Your task to perform on an android device: open sync settings in chrome Image 0: 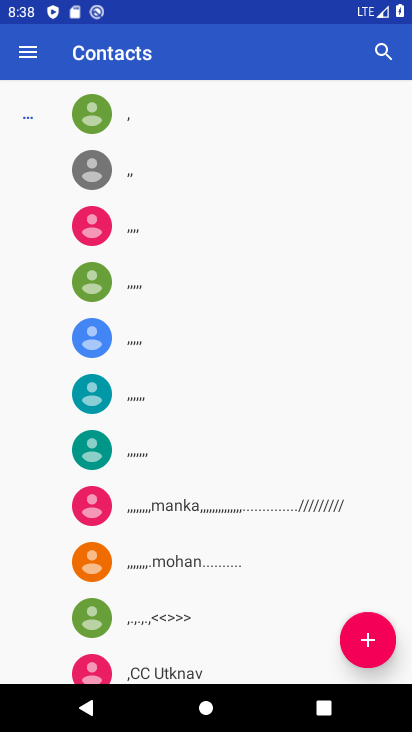
Step 0: press home button
Your task to perform on an android device: open sync settings in chrome Image 1: 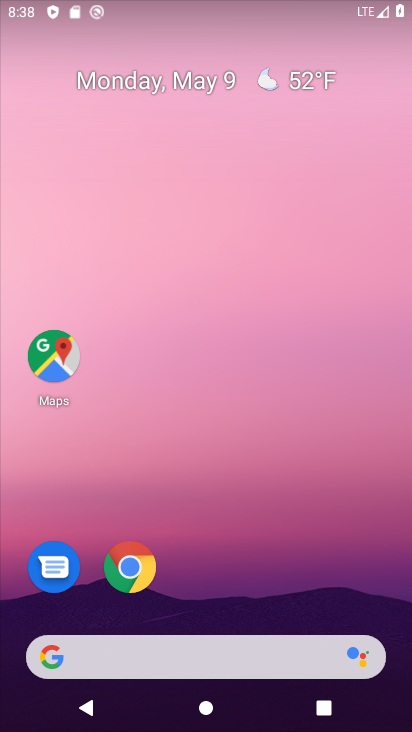
Step 1: click (268, 597)
Your task to perform on an android device: open sync settings in chrome Image 2: 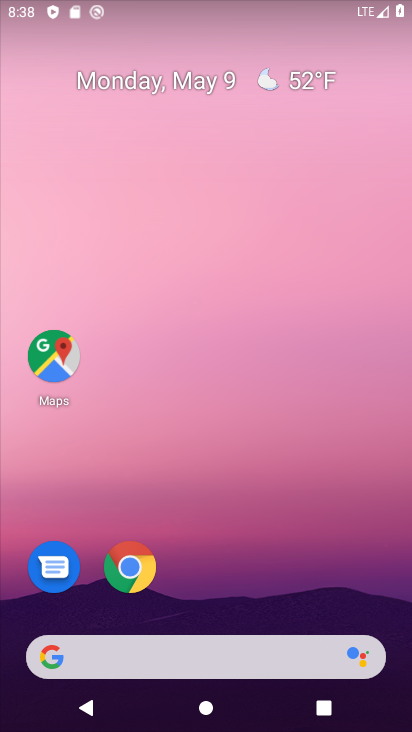
Step 2: click (141, 573)
Your task to perform on an android device: open sync settings in chrome Image 3: 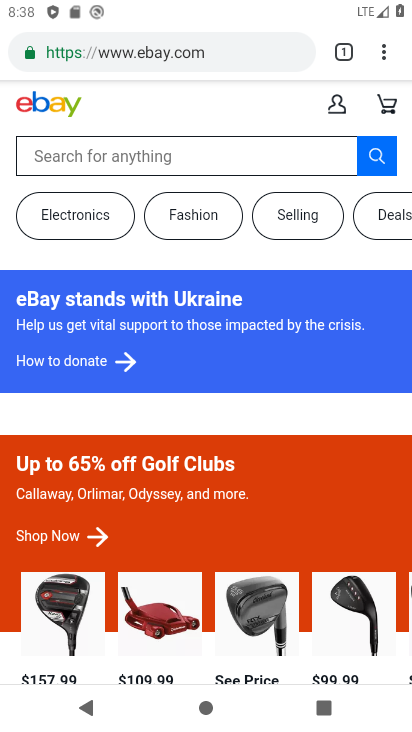
Step 3: click (393, 62)
Your task to perform on an android device: open sync settings in chrome Image 4: 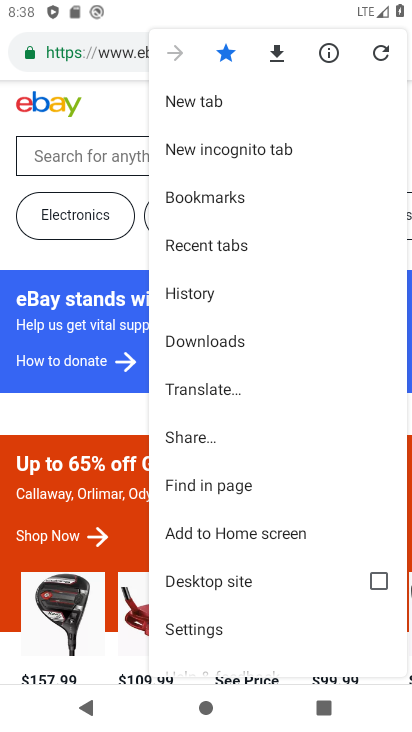
Step 4: click (246, 625)
Your task to perform on an android device: open sync settings in chrome Image 5: 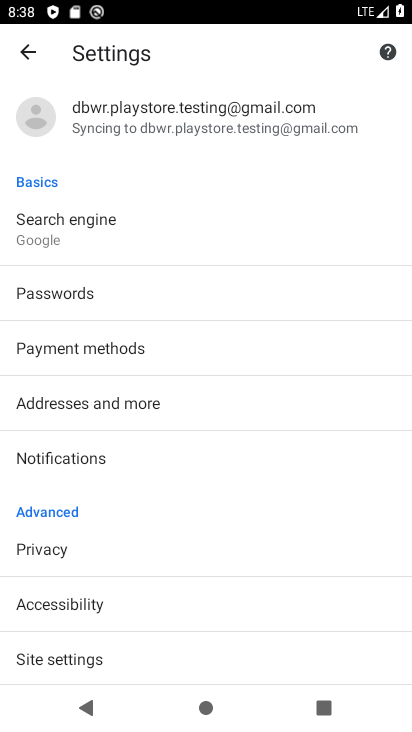
Step 5: click (83, 107)
Your task to perform on an android device: open sync settings in chrome Image 6: 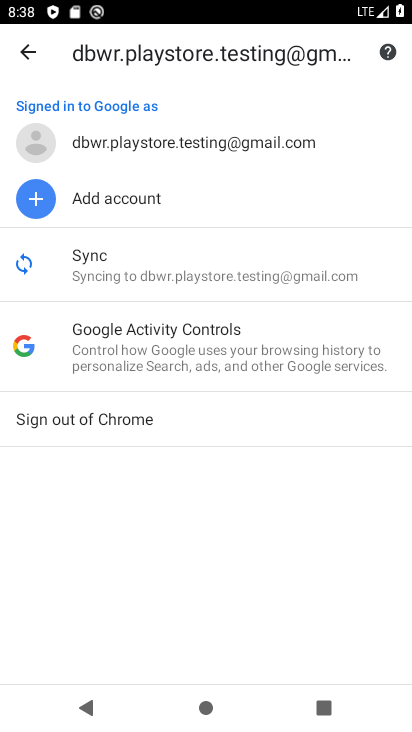
Step 6: click (107, 258)
Your task to perform on an android device: open sync settings in chrome Image 7: 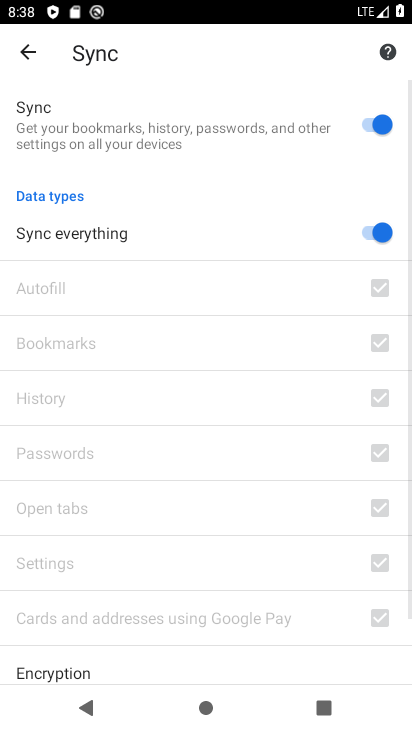
Step 7: task complete